Your task to perform on an android device: Search for flights from Sydney to Helsinki Image 0: 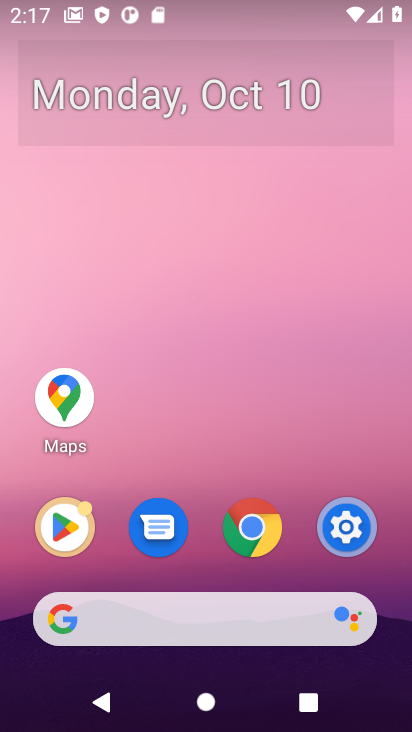
Step 0: click (302, 612)
Your task to perform on an android device: Search for flights from Sydney to Helsinki Image 1: 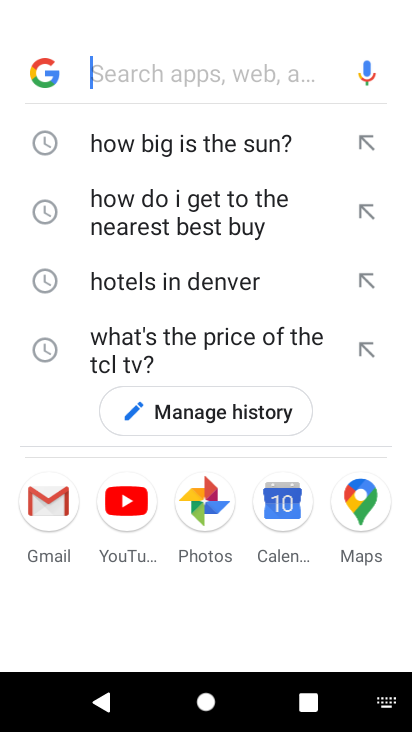
Step 1: type "flights from Sydney to Helsinki"
Your task to perform on an android device: Search for flights from Sydney to Helsinki Image 2: 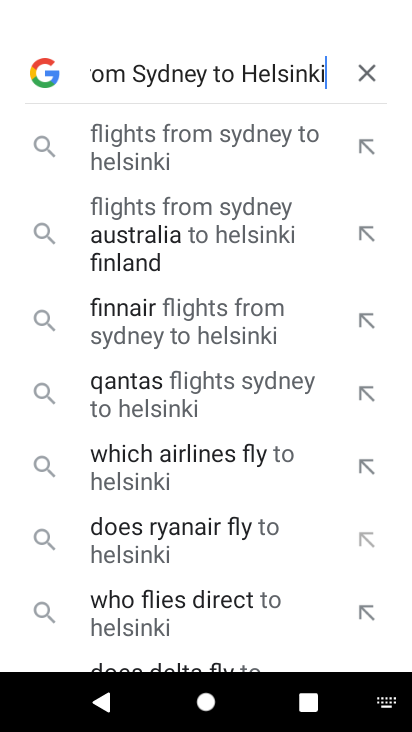
Step 2: press enter
Your task to perform on an android device: Search for flights from Sydney to Helsinki Image 3: 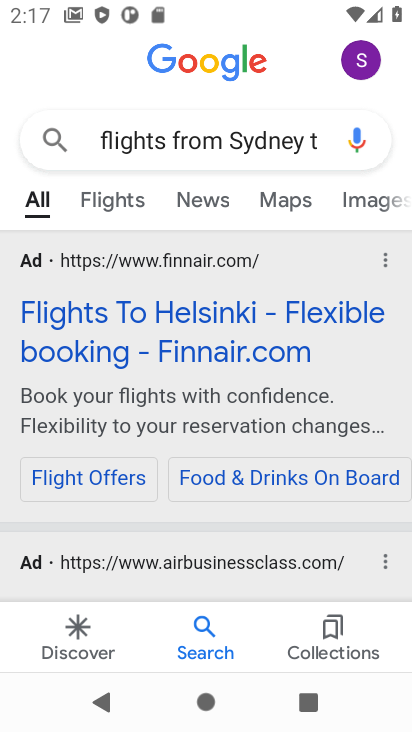
Step 3: drag from (295, 537) to (338, 319)
Your task to perform on an android device: Search for flights from Sydney to Helsinki Image 4: 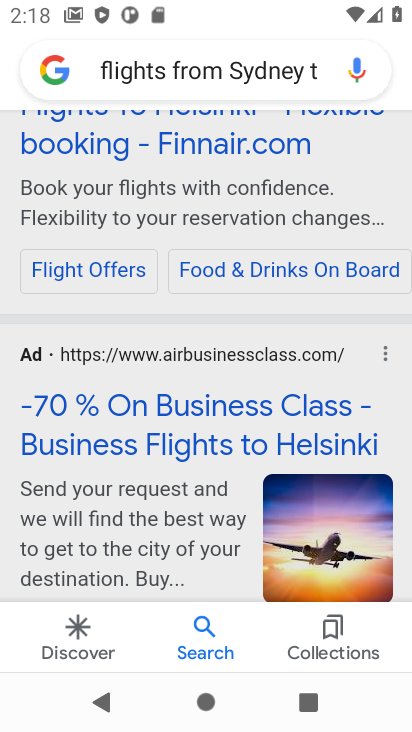
Step 4: drag from (197, 502) to (201, 373)
Your task to perform on an android device: Search for flights from Sydney to Helsinki Image 5: 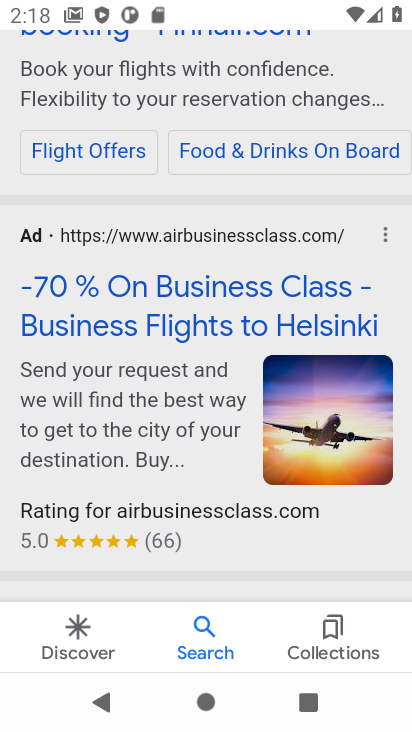
Step 5: drag from (174, 513) to (198, 267)
Your task to perform on an android device: Search for flights from Sydney to Helsinki Image 6: 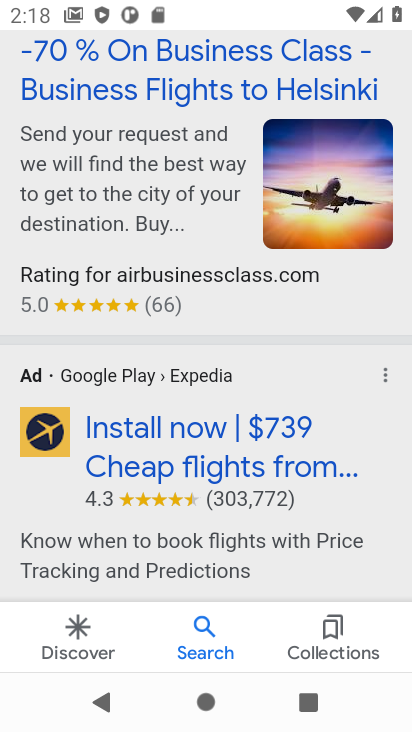
Step 6: drag from (160, 519) to (185, 337)
Your task to perform on an android device: Search for flights from Sydney to Helsinki Image 7: 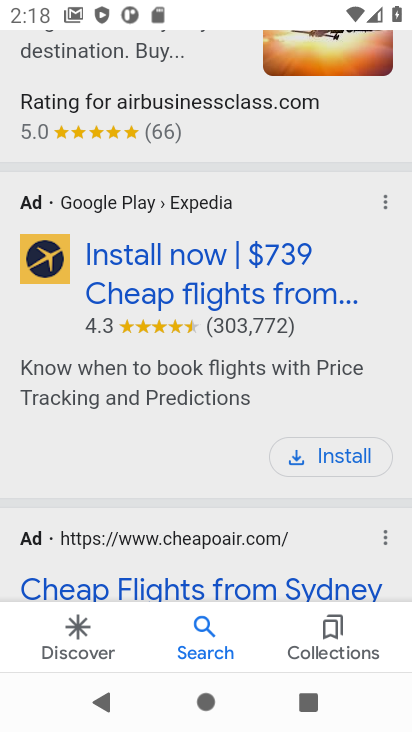
Step 7: drag from (166, 537) to (213, 330)
Your task to perform on an android device: Search for flights from Sydney to Helsinki Image 8: 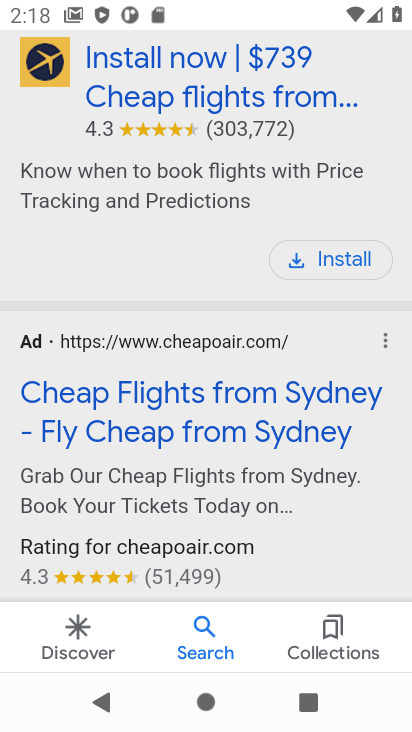
Step 8: drag from (214, 530) to (250, 259)
Your task to perform on an android device: Search for flights from Sydney to Helsinki Image 9: 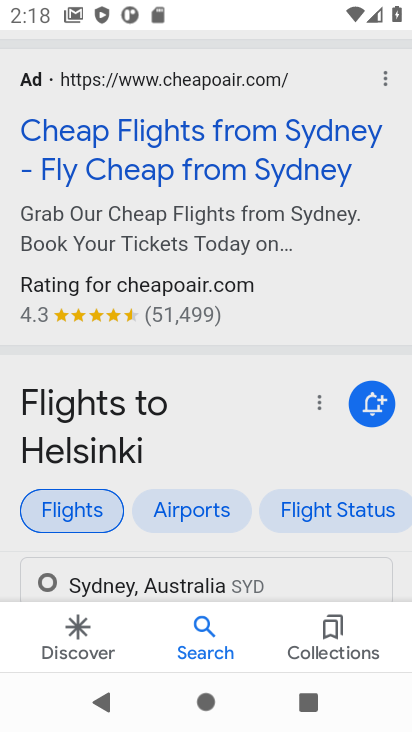
Step 9: drag from (253, 549) to (297, 236)
Your task to perform on an android device: Search for flights from Sydney to Helsinki Image 10: 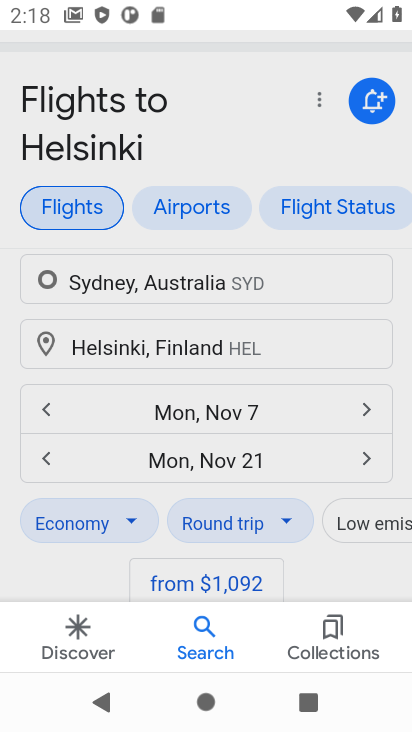
Step 10: drag from (233, 542) to (257, 307)
Your task to perform on an android device: Search for flights from Sydney to Helsinki Image 11: 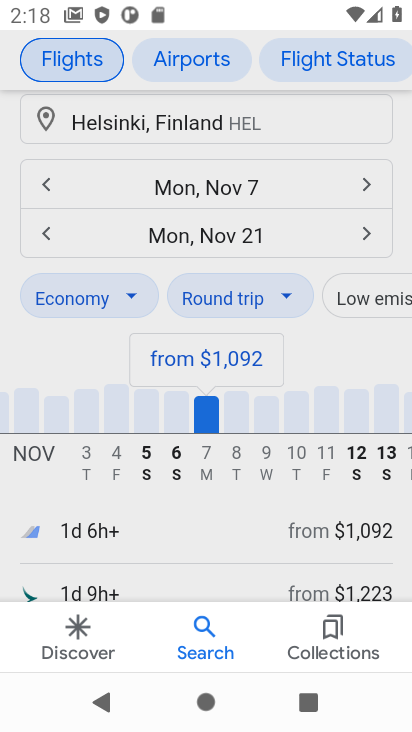
Step 11: drag from (216, 557) to (237, 403)
Your task to perform on an android device: Search for flights from Sydney to Helsinki Image 12: 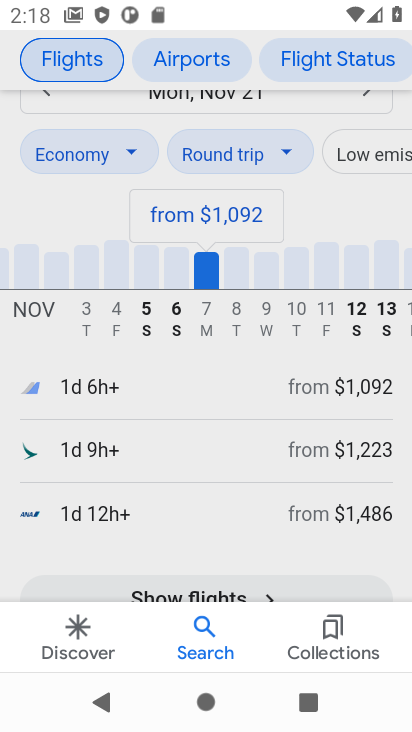
Step 12: drag from (196, 528) to (218, 382)
Your task to perform on an android device: Search for flights from Sydney to Helsinki Image 13: 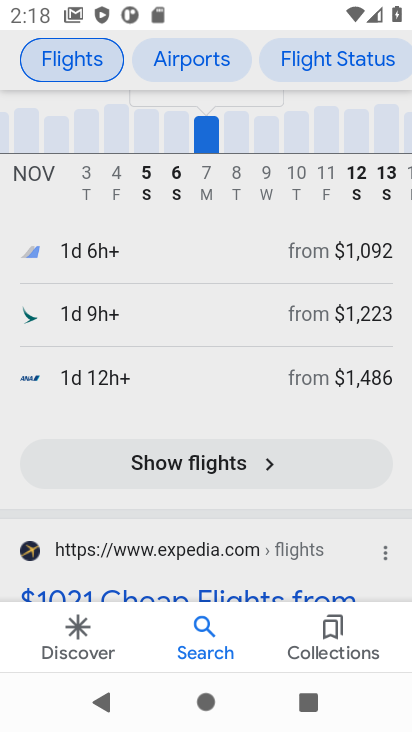
Step 13: click (194, 476)
Your task to perform on an android device: Search for flights from Sydney to Helsinki Image 14: 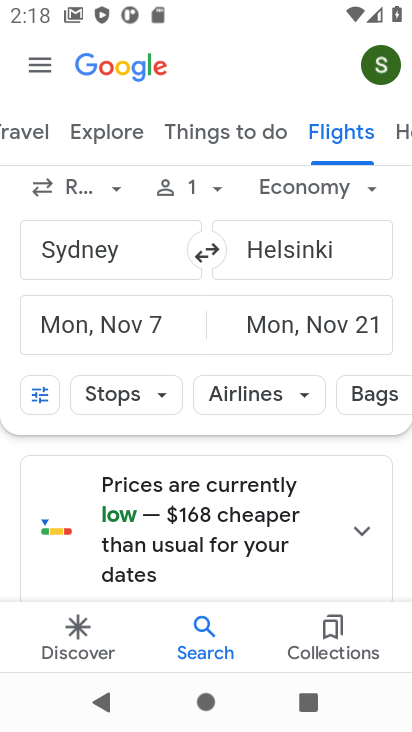
Step 14: task complete